Your task to perform on an android device: Open my contact list Image 0: 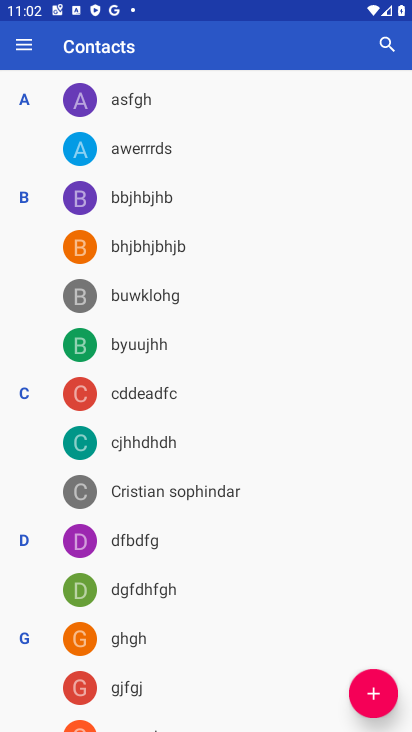
Step 0: press home button
Your task to perform on an android device: Open my contact list Image 1: 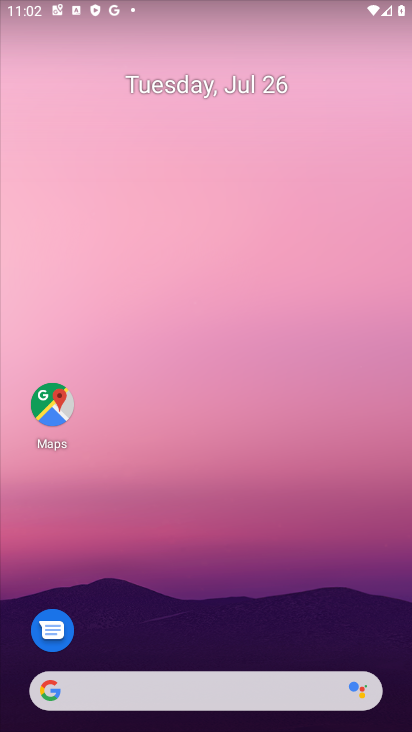
Step 1: drag from (214, 656) to (345, 109)
Your task to perform on an android device: Open my contact list Image 2: 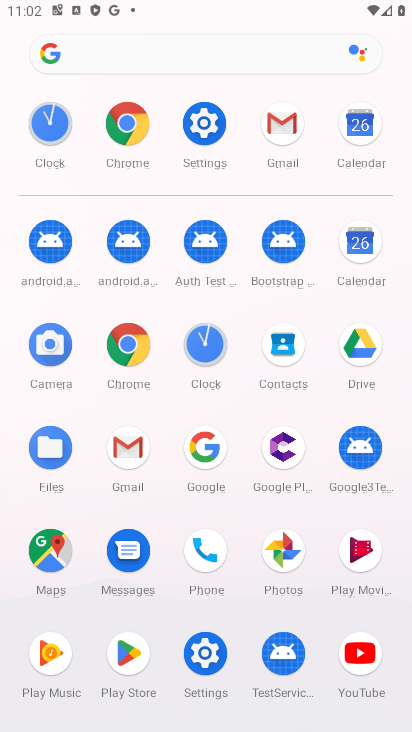
Step 2: click (220, 558)
Your task to perform on an android device: Open my contact list Image 3: 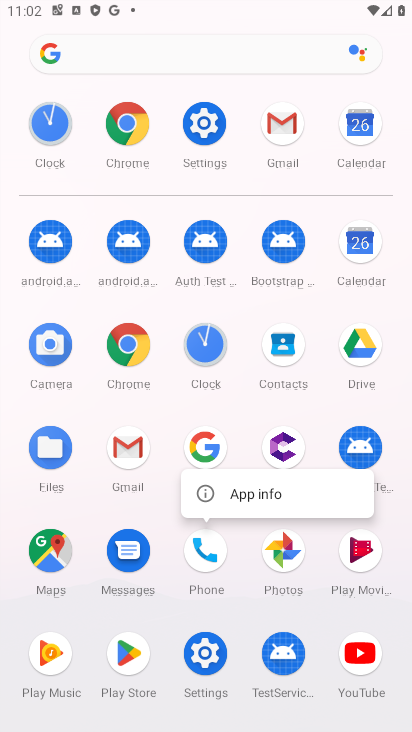
Step 3: click (220, 558)
Your task to perform on an android device: Open my contact list Image 4: 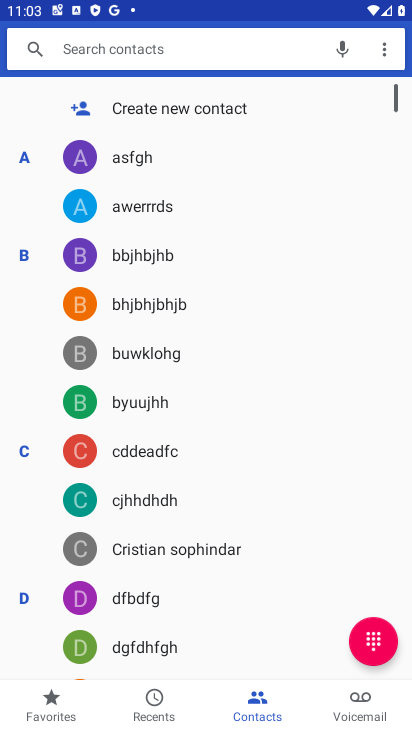
Step 4: task complete